Your task to perform on an android device: Open Reddit.com Image 0: 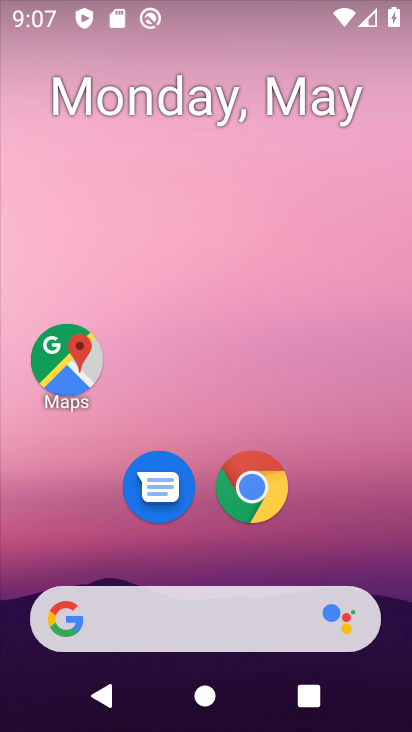
Step 0: drag from (212, 534) to (204, 130)
Your task to perform on an android device: Open Reddit.com Image 1: 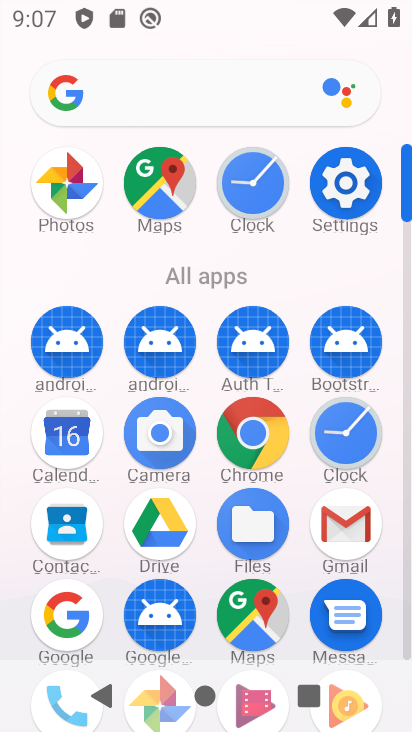
Step 1: click (70, 606)
Your task to perform on an android device: Open Reddit.com Image 2: 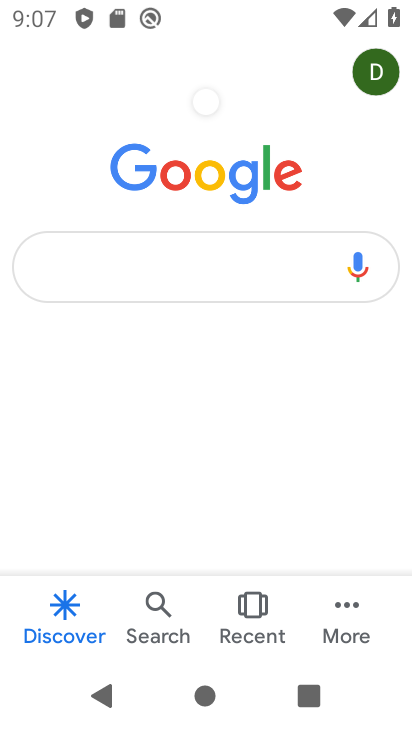
Step 2: click (150, 265)
Your task to perform on an android device: Open Reddit.com Image 3: 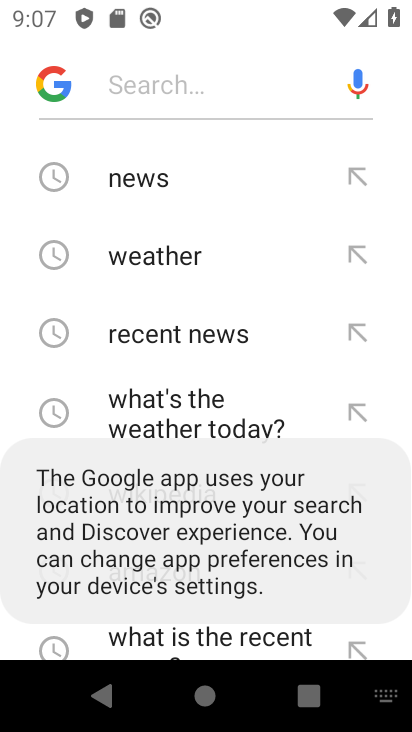
Step 3: drag from (188, 356) to (174, 134)
Your task to perform on an android device: Open Reddit.com Image 4: 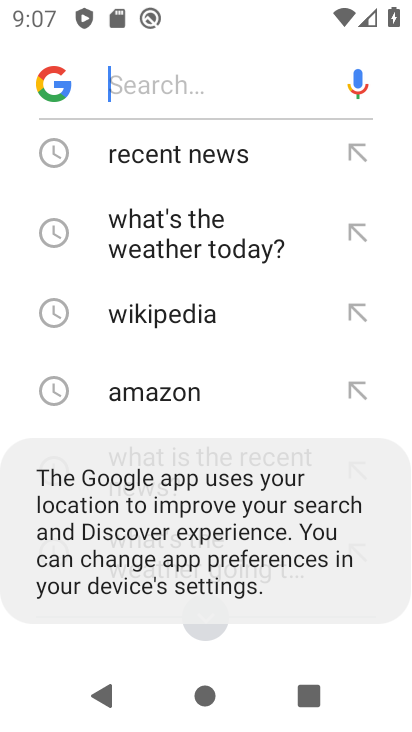
Step 4: drag from (236, 387) to (222, 122)
Your task to perform on an android device: Open Reddit.com Image 5: 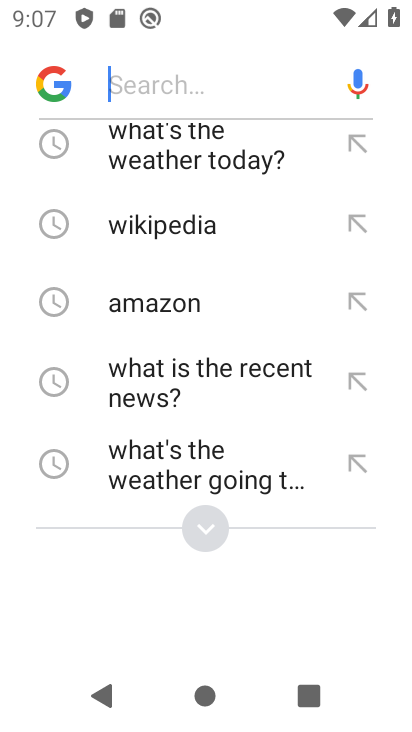
Step 5: click (216, 517)
Your task to perform on an android device: Open Reddit.com Image 6: 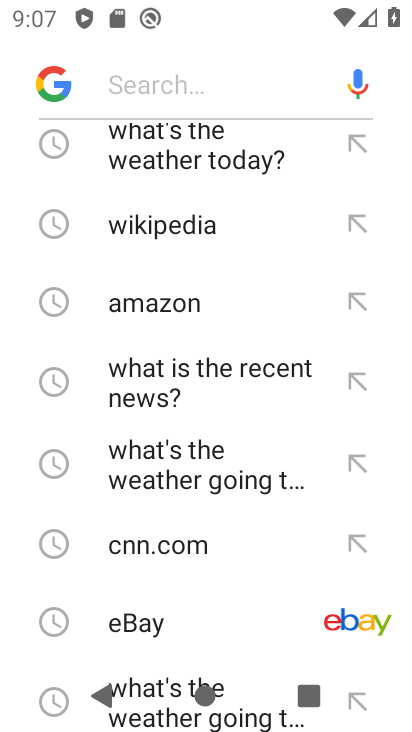
Step 6: drag from (212, 593) to (216, 201)
Your task to perform on an android device: Open Reddit.com Image 7: 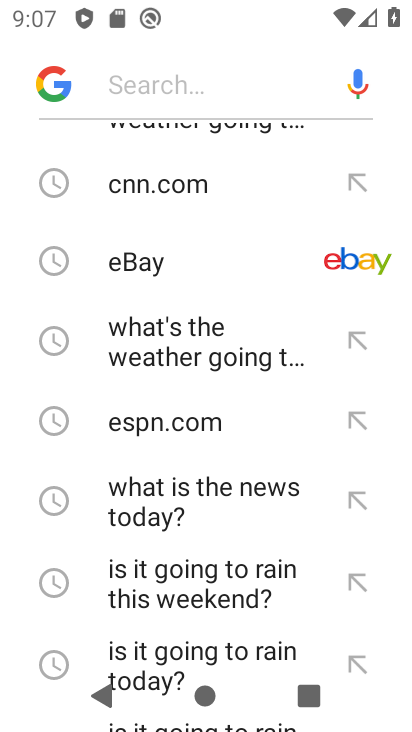
Step 7: drag from (161, 552) to (144, 131)
Your task to perform on an android device: Open Reddit.com Image 8: 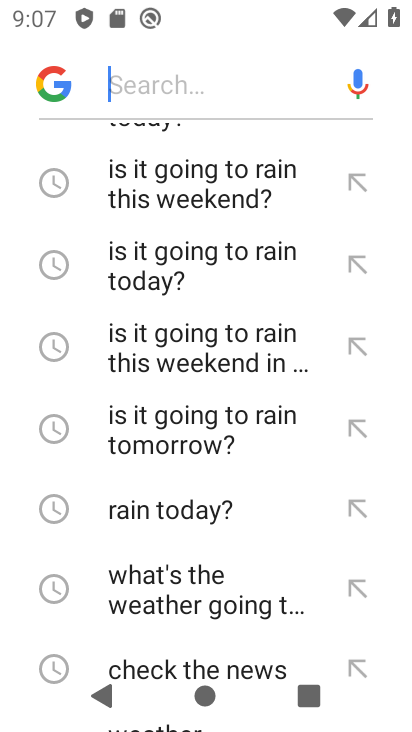
Step 8: type "reddit.com"
Your task to perform on an android device: Open Reddit.com Image 9: 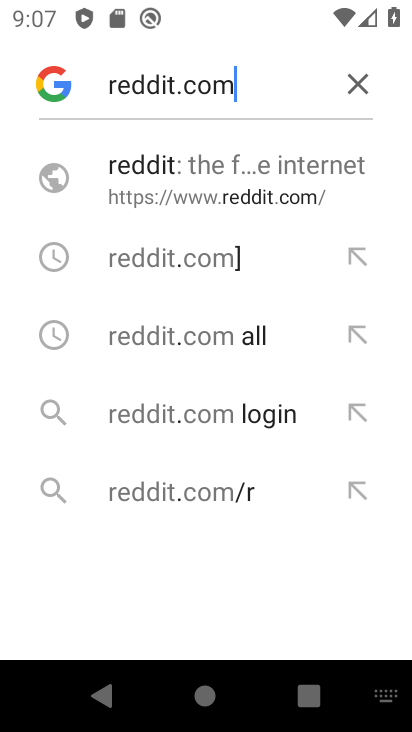
Step 9: click (258, 185)
Your task to perform on an android device: Open Reddit.com Image 10: 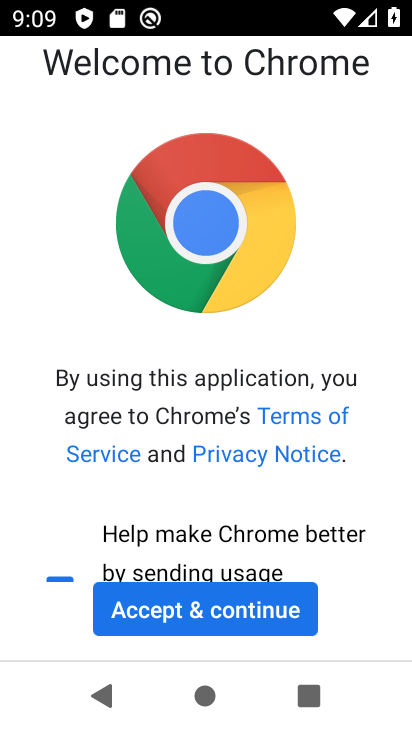
Step 10: click (226, 608)
Your task to perform on an android device: Open Reddit.com Image 11: 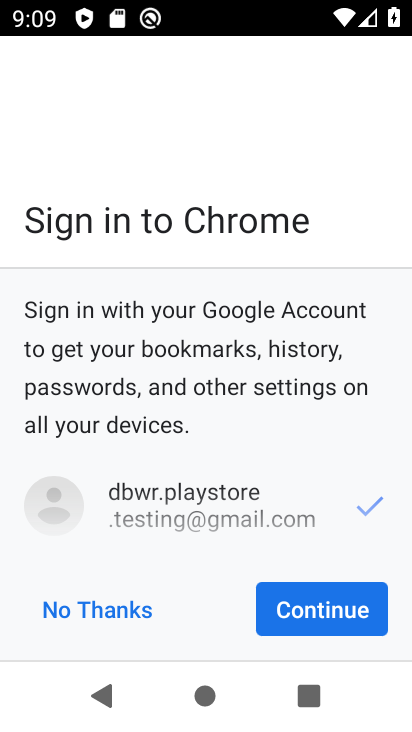
Step 11: click (303, 607)
Your task to perform on an android device: Open Reddit.com Image 12: 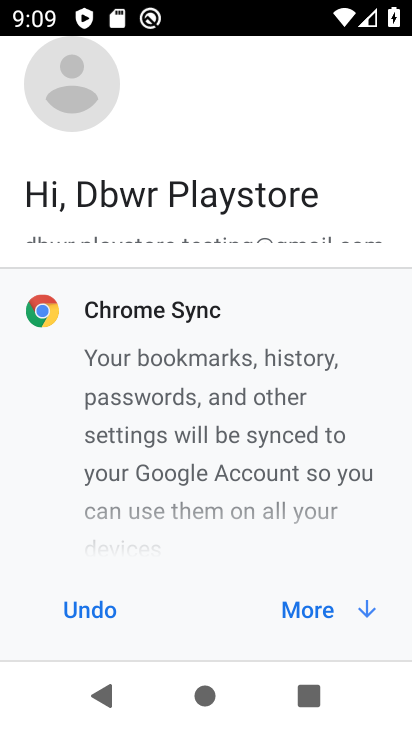
Step 12: click (303, 607)
Your task to perform on an android device: Open Reddit.com Image 13: 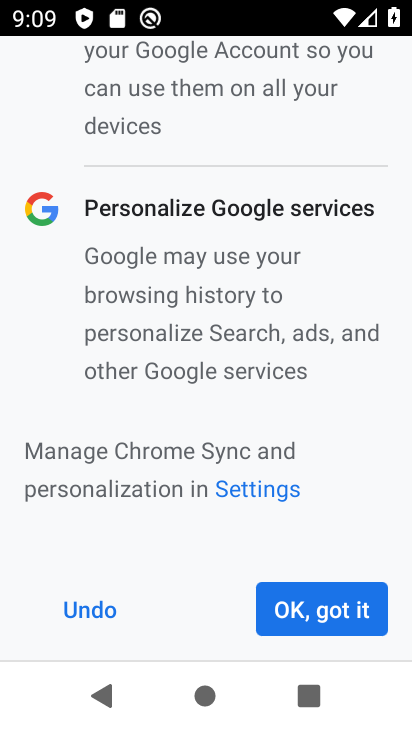
Step 13: click (303, 607)
Your task to perform on an android device: Open Reddit.com Image 14: 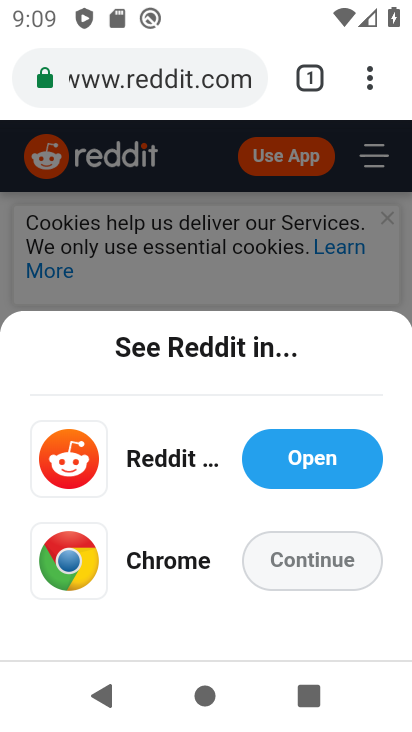
Step 14: task complete